Your task to perform on an android device: Check the weather Image 0: 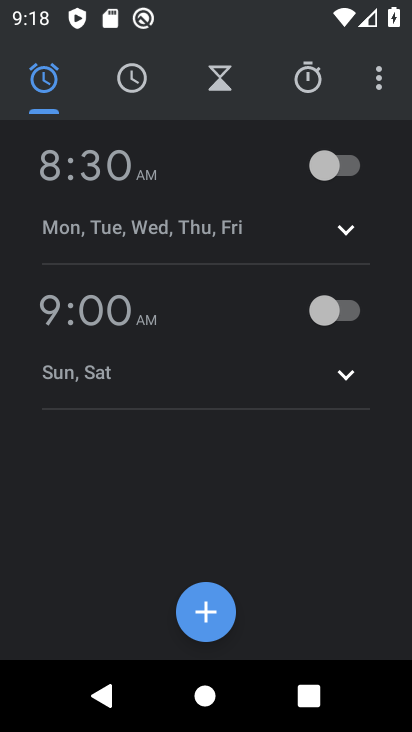
Step 0: press home button
Your task to perform on an android device: Check the weather Image 1: 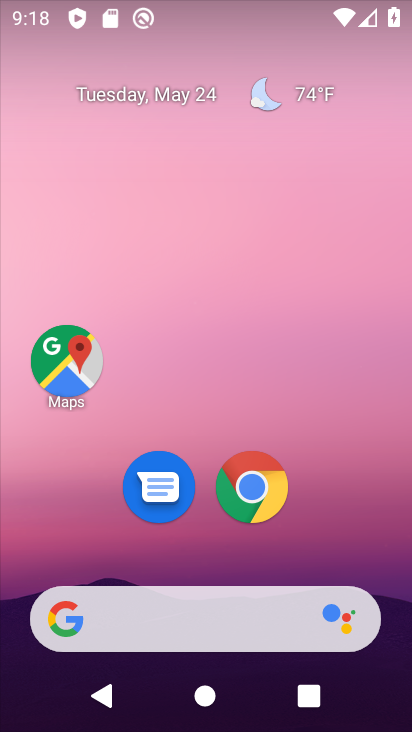
Step 1: click (307, 98)
Your task to perform on an android device: Check the weather Image 2: 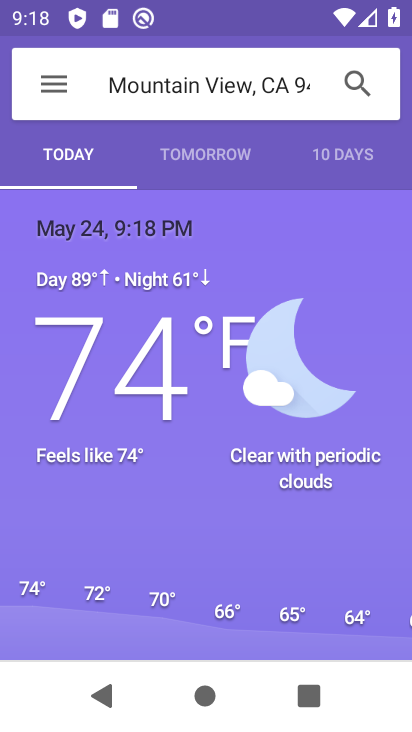
Step 2: task complete